Your task to perform on an android device: allow cookies in the chrome app Image 0: 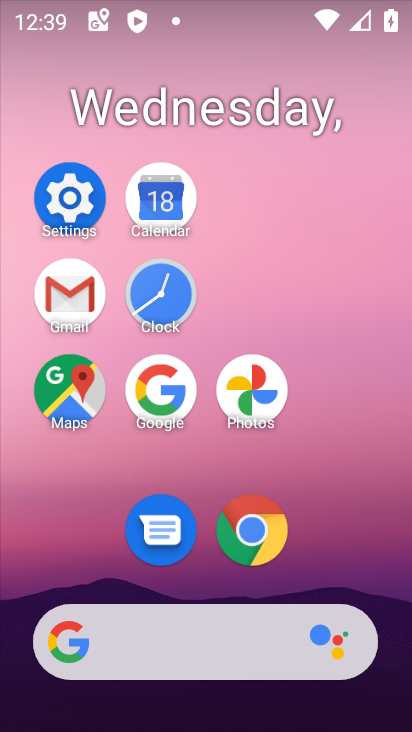
Step 0: click (278, 530)
Your task to perform on an android device: allow cookies in the chrome app Image 1: 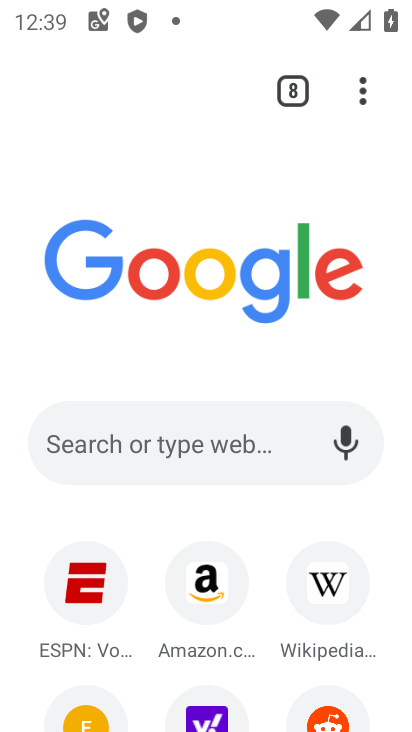
Step 1: click (358, 98)
Your task to perform on an android device: allow cookies in the chrome app Image 2: 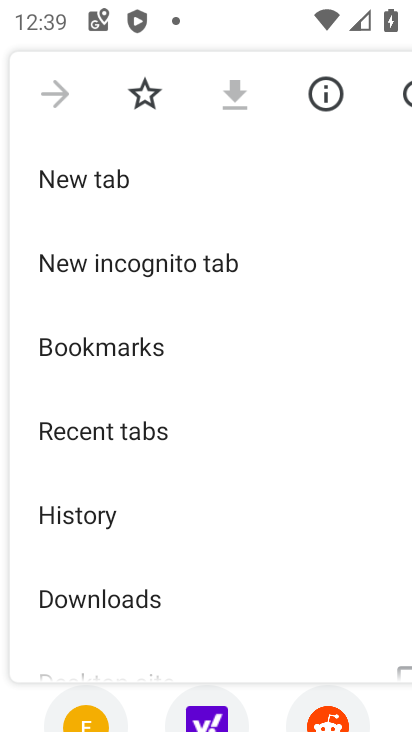
Step 2: drag from (273, 474) to (300, 218)
Your task to perform on an android device: allow cookies in the chrome app Image 3: 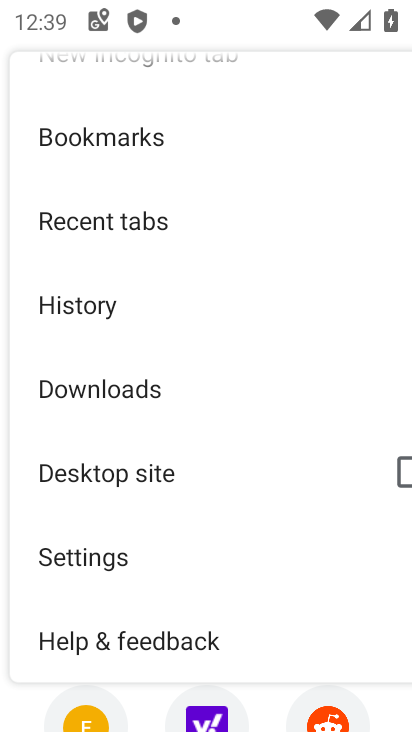
Step 3: click (198, 552)
Your task to perform on an android device: allow cookies in the chrome app Image 4: 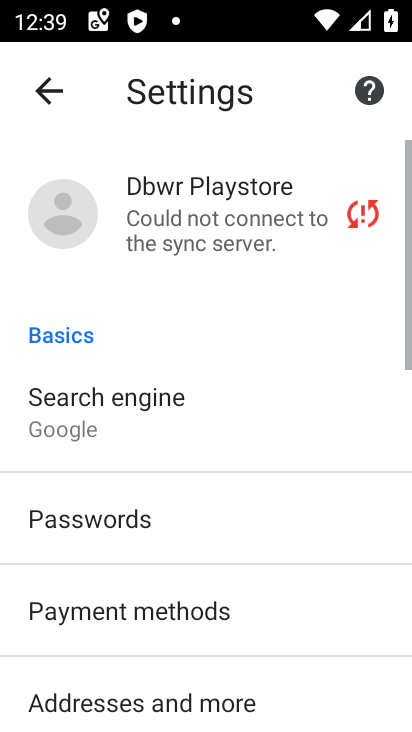
Step 4: drag from (198, 552) to (197, 210)
Your task to perform on an android device: allow cookies in the chrome app Image 5: 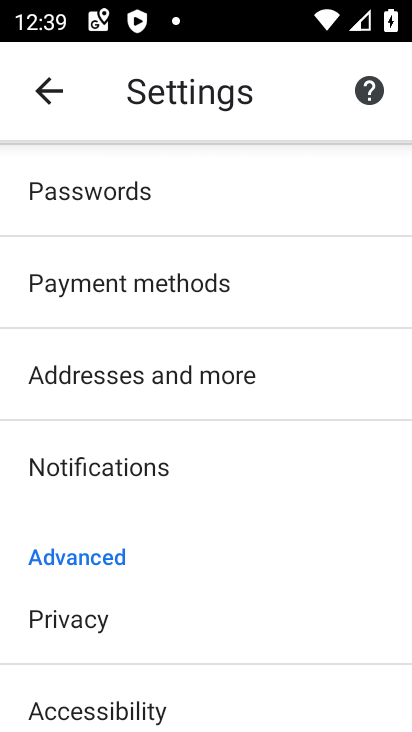
Step 5: drag from (191, 529) to (205, 261)
Your task to perform on an android device: allow cookies in the chrome app Image 6: 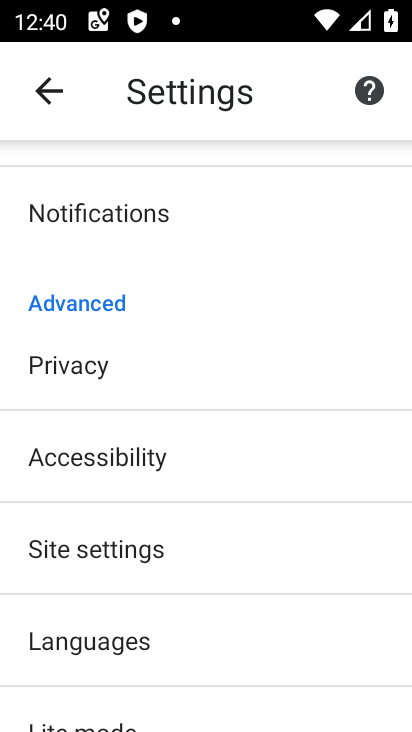
Step 6: click (177, 532)
Your task to perform on an android device: allow cookies in the chrome app Image 7: 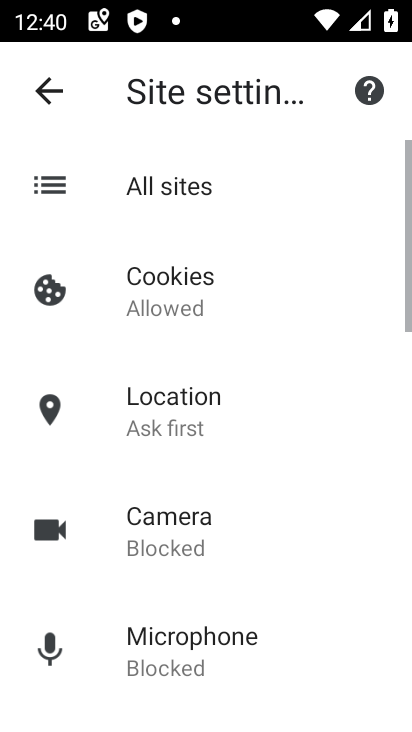
Step 7: click (268, 261)
Your task to perform on an android device: allow cookies in the chrome app Image 8: 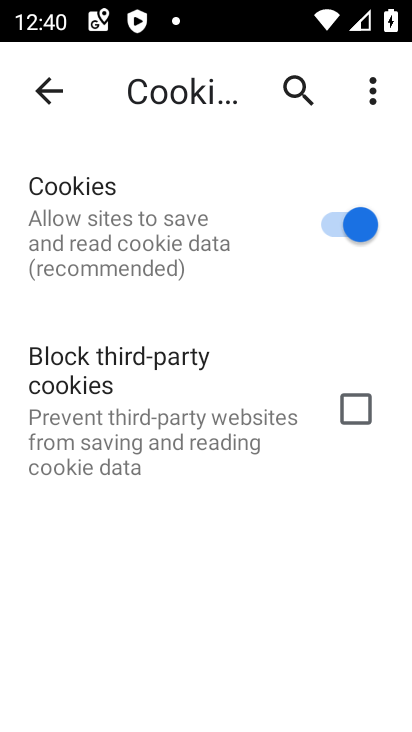
Step 8: task complete